Your task to perform on an android device: Do I have any events today? Image 0: 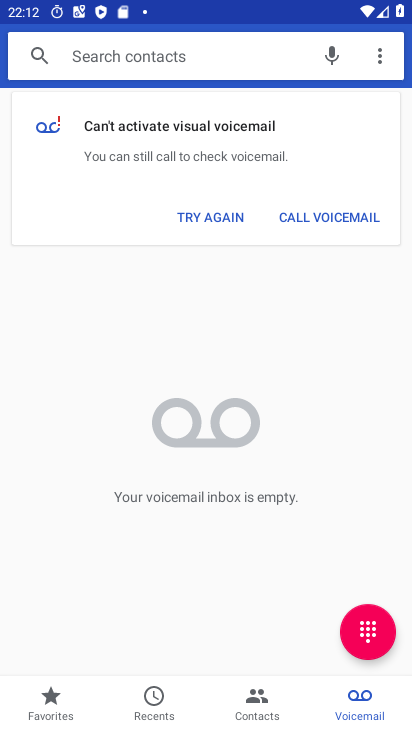
Step 0: press home button
Your task to perform on an android device: Do I have any events today? Image 1: 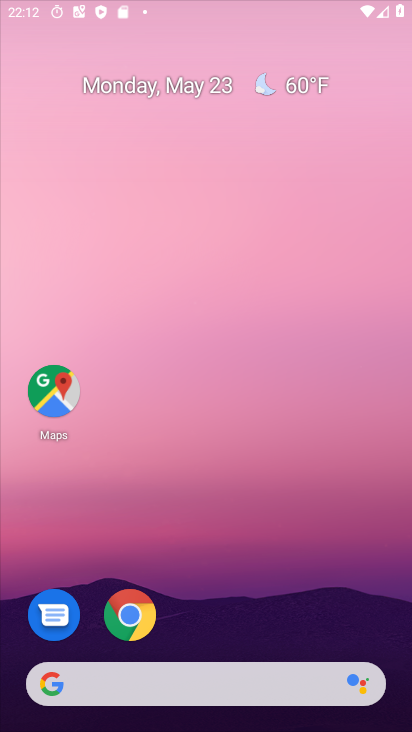
Step 1: drag from (276, 561) to (297, 106)
Your task to perform on an android device: Do I have any events today? Image 2: 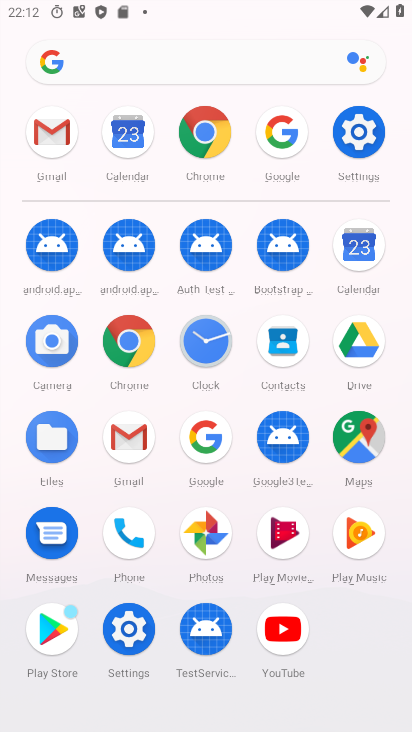
Step 2: click (363, 258)
Your task to perform on an android device: Do I have any events today? Image 3: 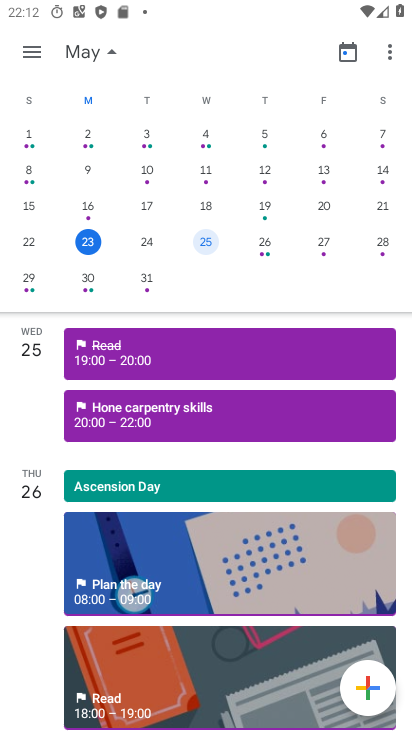
Step 3: click (86, 240)
Your task to perform on an android device: Do I have any events today? Image 4: 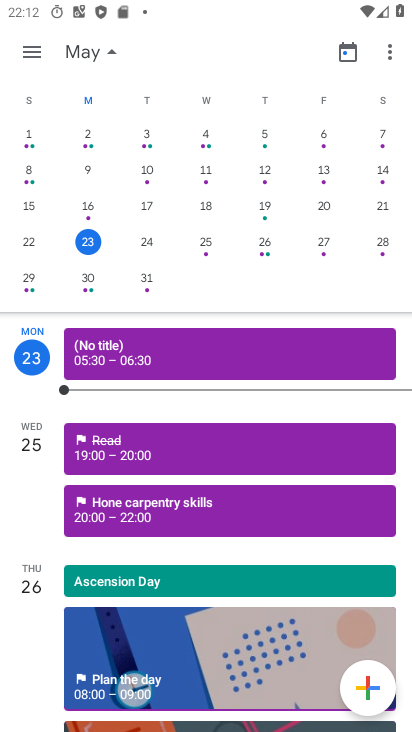
Step 4: task complete